Your task to perform on an android device: Open notification settings Image 0: 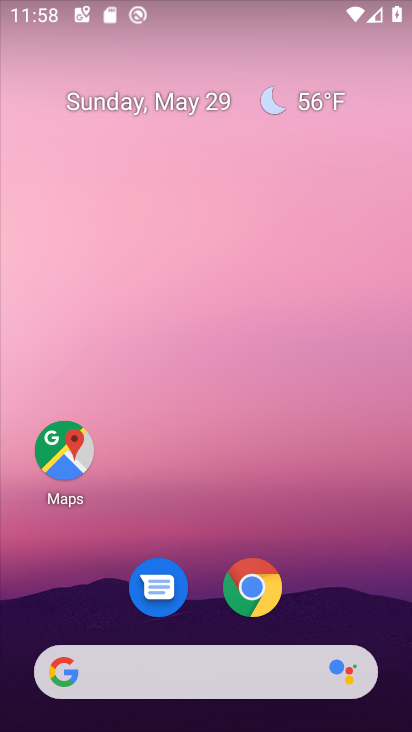
Step 0: drag from (356, 623) to (285, 200)
Your task to perform on an android device: Open notification settings Image 1: 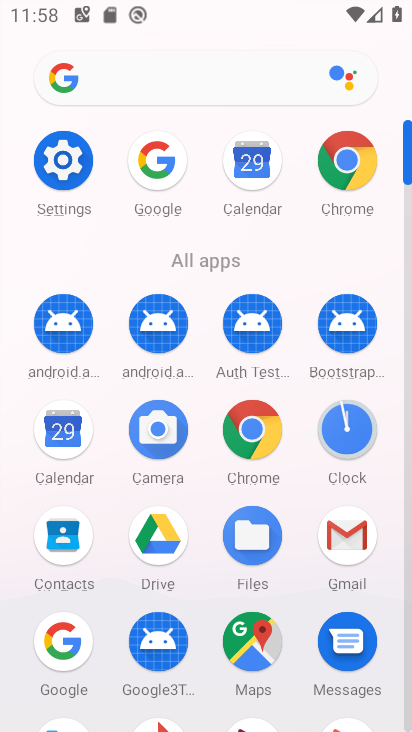
Step 1: click (71, 161)
Your task to perform on an android device: Open notification settings Image 2: 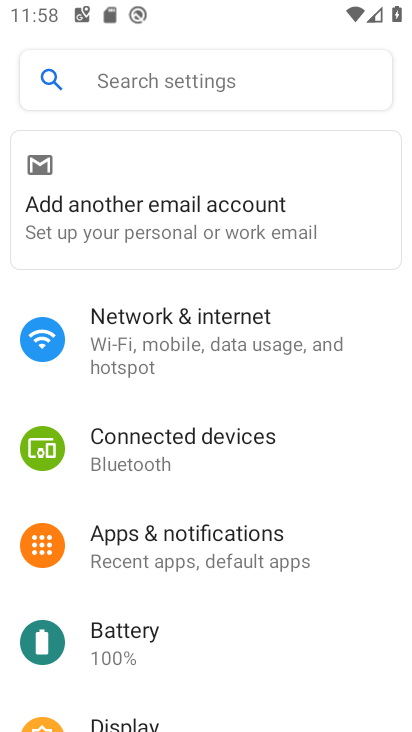
Step 2: click (225, 527)
Your task to perform on an android device: Open notification settings Image 3: 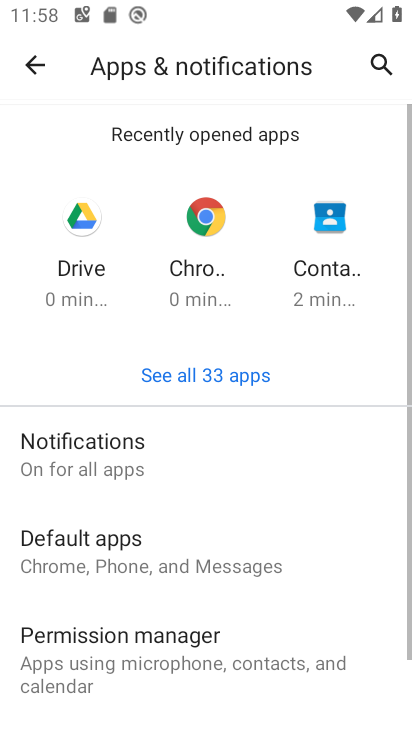
Step 3: drag from (212, 481) to (126, 406)
Your task to perform on an android device: Open notification settings Image 4: 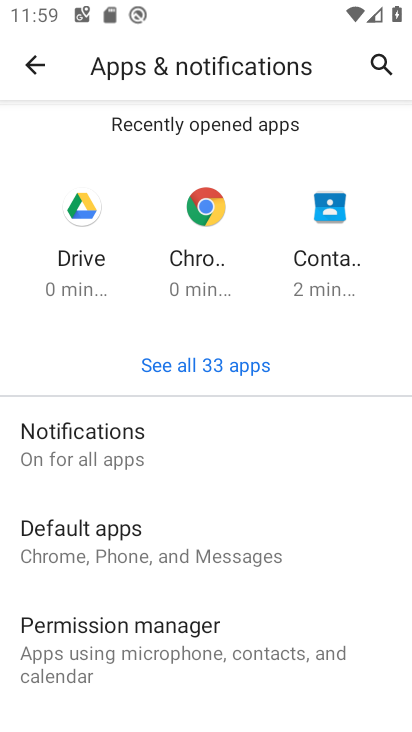
Step 4: click (134, 439)
Your task to perform on an android device: Open notification settings Image 5: 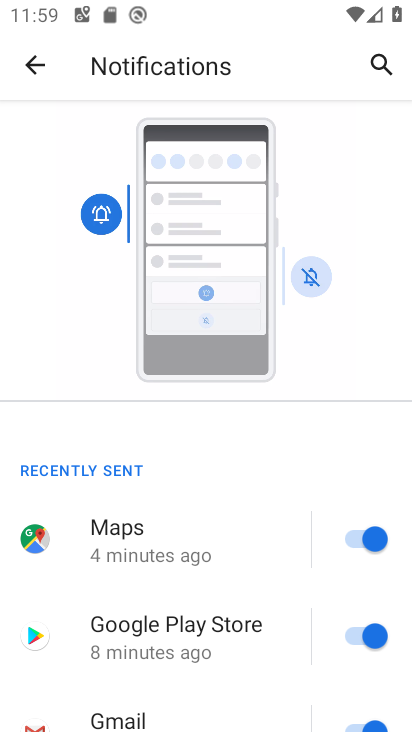
Step 5: task complete